Your task to perform on an android device: empty trash in the gmail app Image 0: 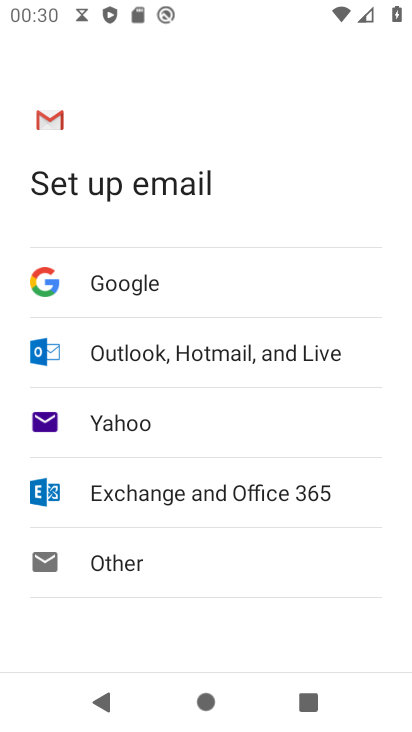
Step 0: press home button
Your task to perform on an android device: empty trash in the gmail app Image 1: 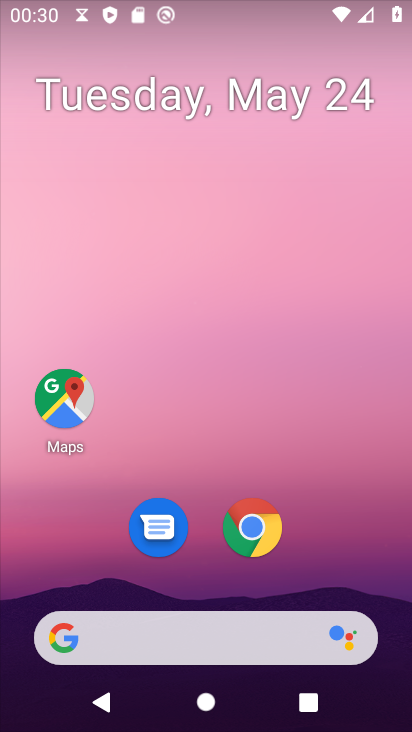
Step 1: drag from (171, 636) to (318, 256)
Your task to perform on an android device: empty trash in the gmail app Image 2: 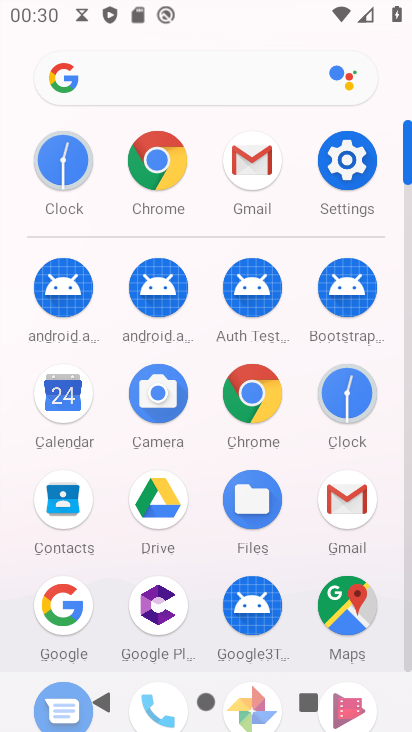
Step 2: click (243, 176)
Your task to perform on an android device: empty trash in the gmail app Image 3: 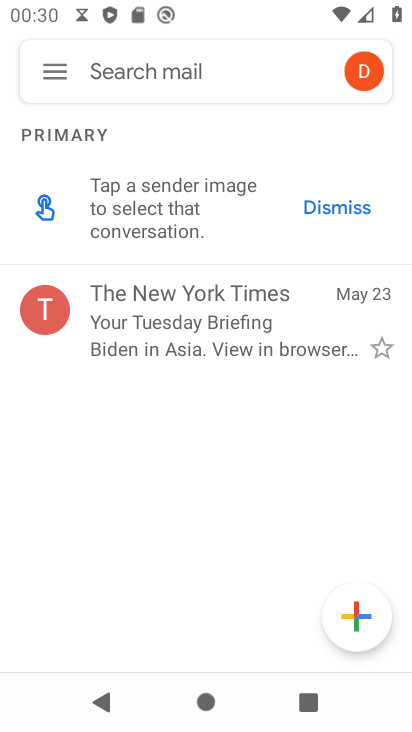
Step 3: click (51, 75)
Your task to perform on an android device: empty trash in the gmail app Image 4: 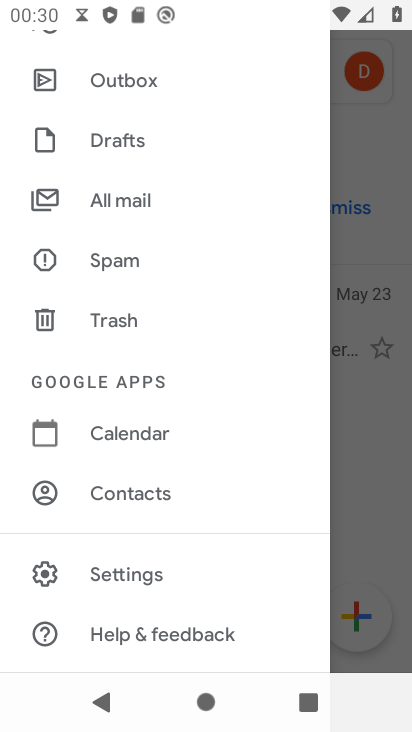
Step 4: click (119, 319)
Your task to perform on an android device: empty trash in the gmail app Image 5: 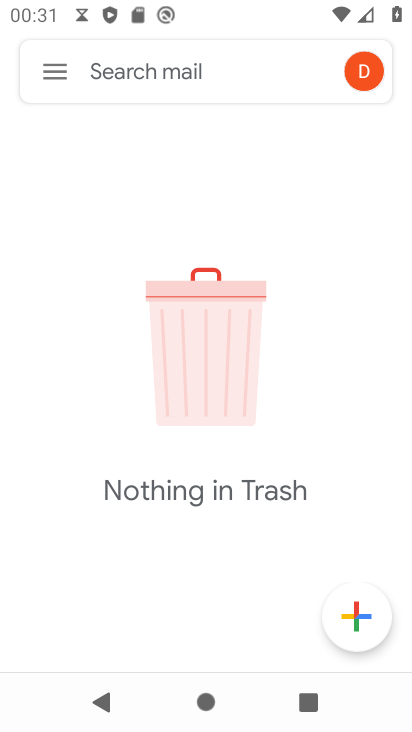
Step 5: task complete